Your task to perform on an android device: delete browsing data in the chrome app Image 0: 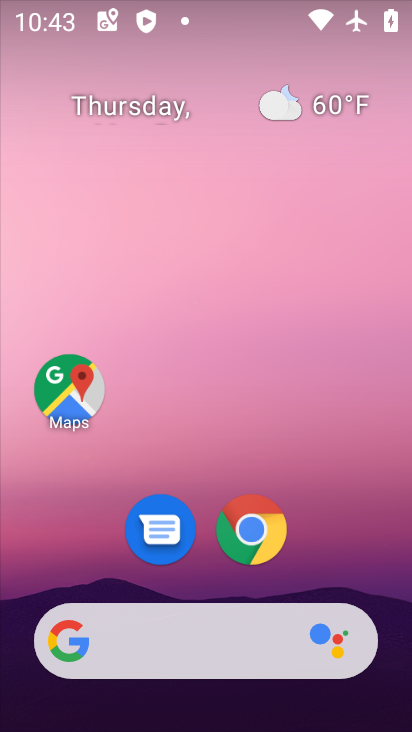
Step 0: drag from (343, 603) to (167, 82)
Your task to perform on an android device: delete browsing data in the chrome app Image 1: 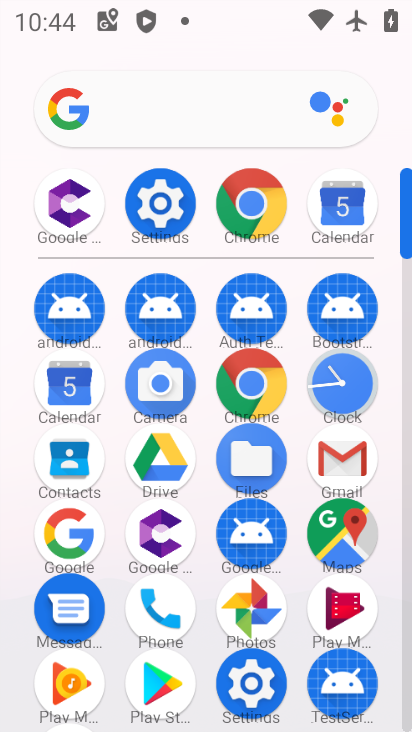
Step 1: click (235, 393)
Your task to perform on an android device: delete browsing data in the chrome app Image 2: 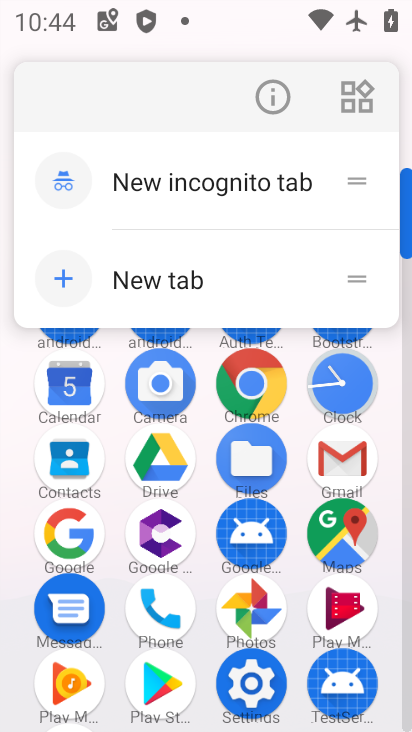
Step 2: click (240, 390)
Your task to perform on an android device: delete browsing data in the chrome app Image 3: 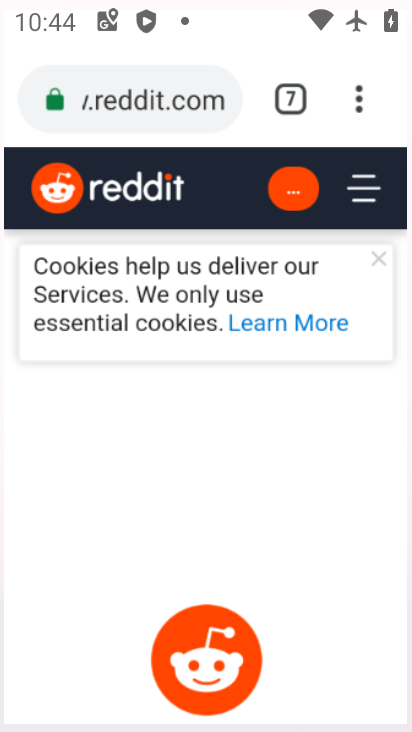
Step 3: click (243, 389)
Your task to perform on an android device: delete browsing data in the chrome app Image 4: 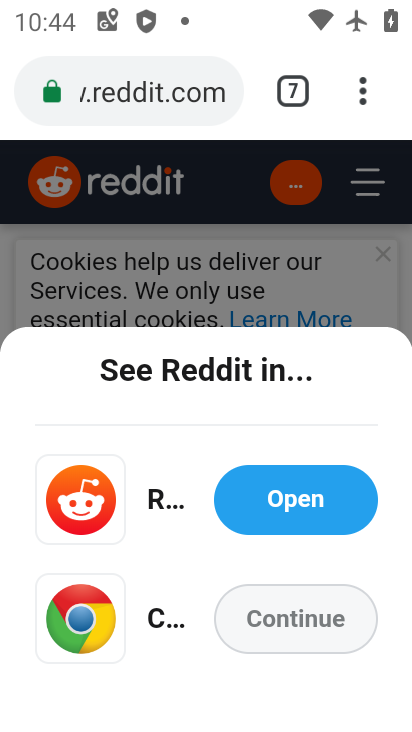
Step 4: drag from (357, 91) to (93, 513)
Your task to perform on an android device: delete browsing data in the chrome app Image 5: 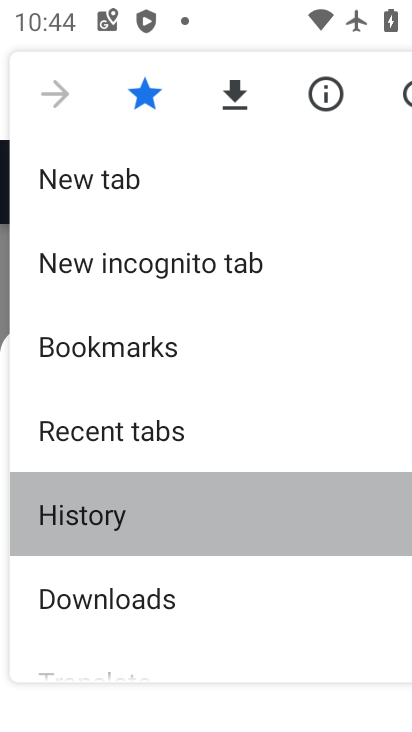
Step 5: click (90, 519)
Your task to perform on an android device: delete browsing data in the chrome app Image 6: 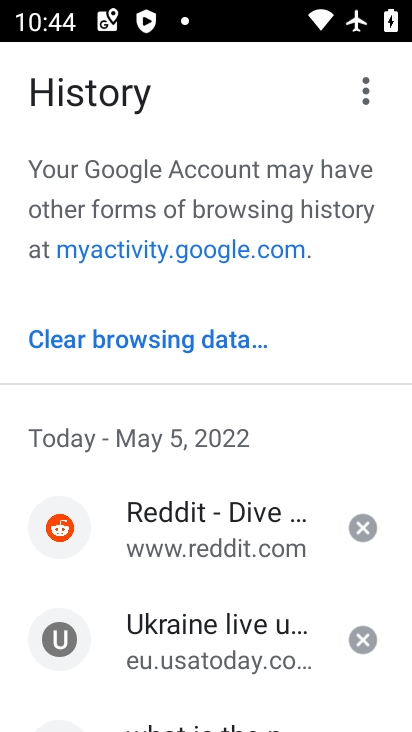
Step 6: click (354, 530)
Your task to perform on an android device: delete browsing data in the chrome app Image 7: 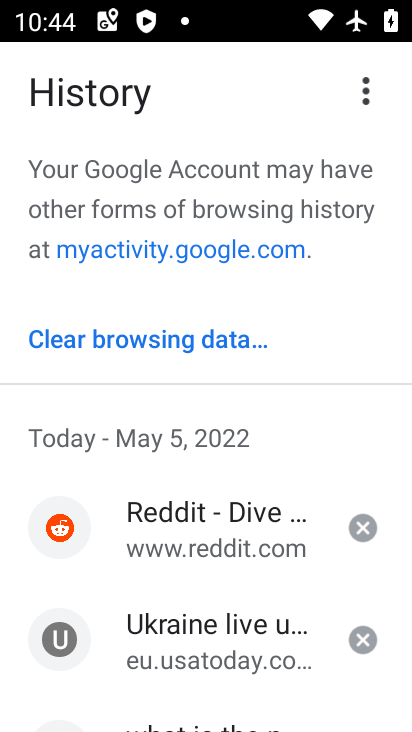
Step 7: click (358, 524)
Your task to perform on an android device: delete browsing data in the chrome app Image 8: 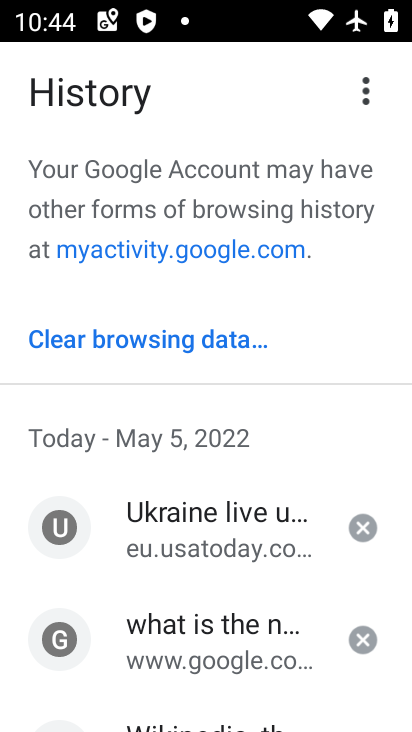
Step 8: task complete